Your task to perform on an android device: see sites visited before in the chrome app Image 0: 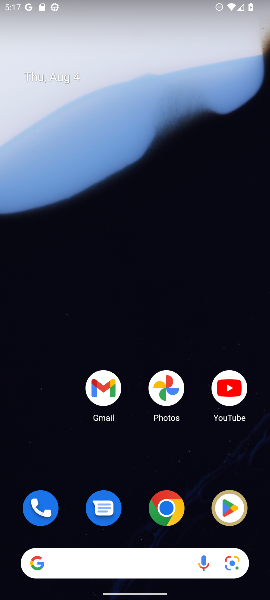
Step 0: click (268, 445)
Your task to perform on an android device: see sites visited before in the chrome app Image 1: 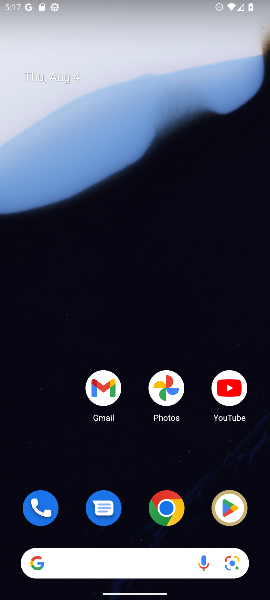
Step 1: drag from (134, 521) to (126, 267)
Your task to perform on an android device: see sites visited before in the chrome app Image 2: 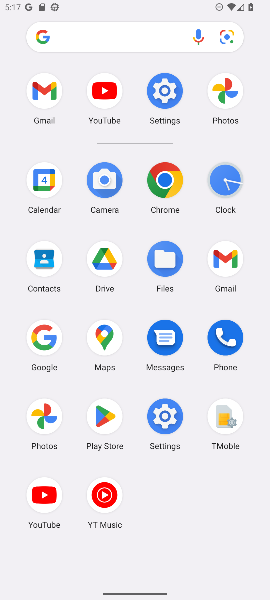
Step 2: click (155, 180)
Your task to perform on an android device: see sites visited before in the chrome app Image 3: 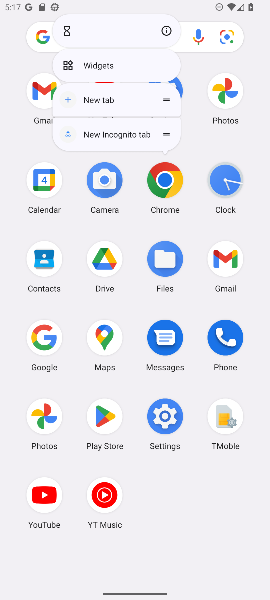
Step 3: click (159, 167)
Your task to perform on an android device: see sites visited before in the chrome app Image 4: 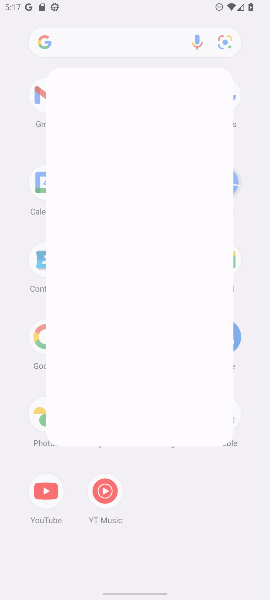
Step 4: click (159, 167)
Your task to perform on an android device: see sites visited before in the chrome app Image 5: 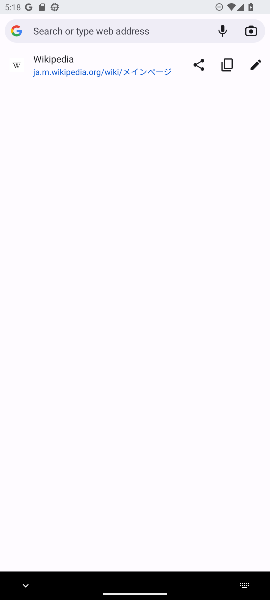
Step 5: drag from (114, 442) to (169, 295)
Your task to perform on an android device: see sites visited before in the chrome app Image 6: 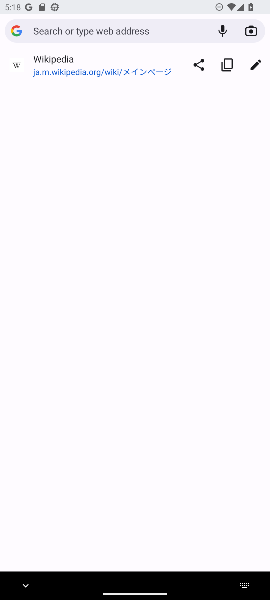
Step 6: press home button
Your task to perform on an android device: see sites visited before in the chrome app Image 7: 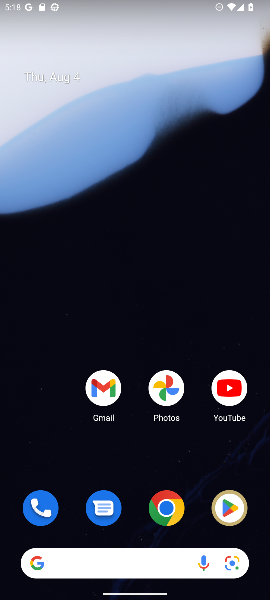
Step 7: click (173, 497)
Your task to perform on an android device: see sites visited before in the chrome app Image 8: 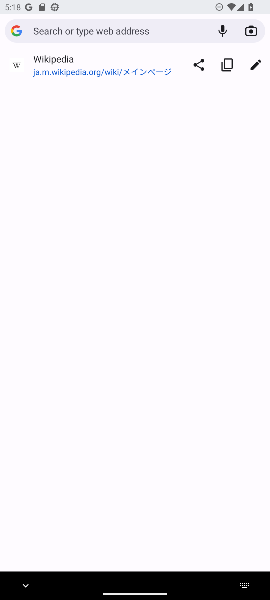
Step 8: task complete